Your task to perform on an android device: turn off notifications settings in the gmail app Image 0: 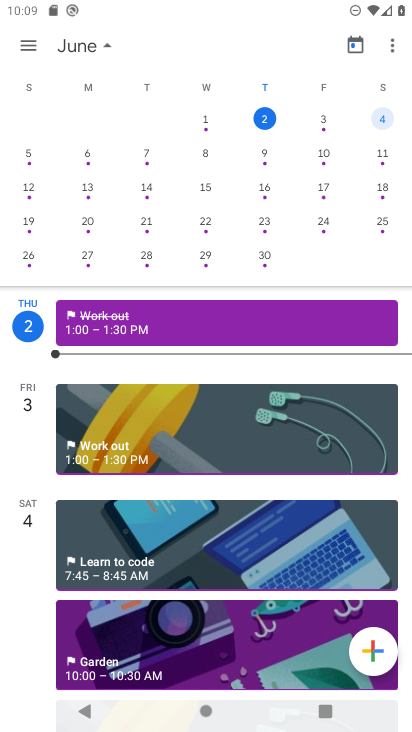
Step 0: press home button
Your task to perform on an android device: turn off notifications settings in the gmail app Image 1: 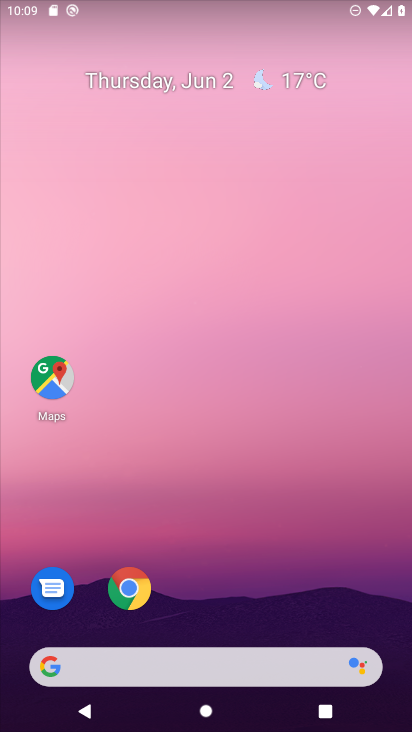
Step 1: drag from (206, 682) to (219, 591)
Your task to perform on an android device: turn off notifications settings in the gmail app Image 2: 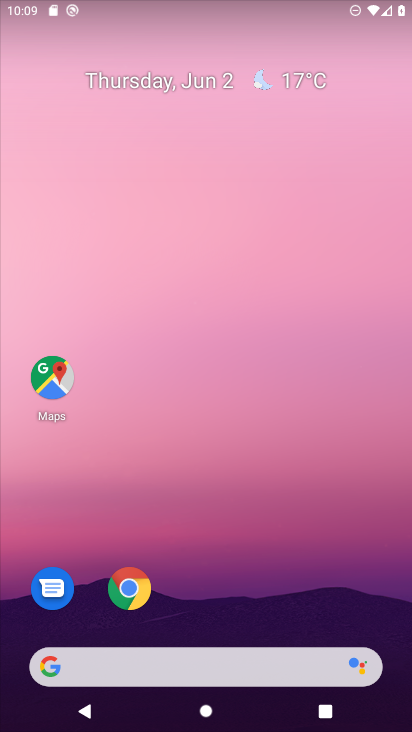
Step 2: drag from (224, 623) to (224, 185)
Your task to perform on an android device: turn off notifications settings in the gmail app Image 3: 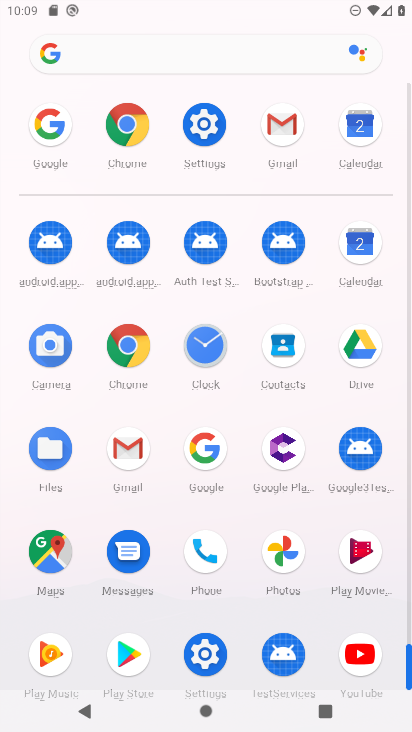
Step 3: click (133, 464)
Your task to perform on an android device: turn off notifications settings in the gmail app Image 4: 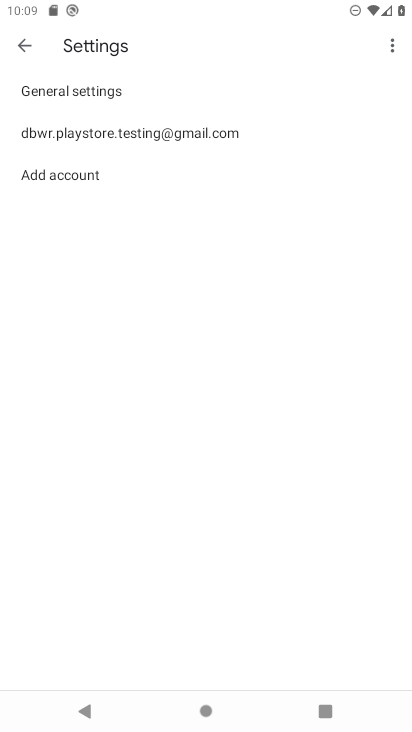
Step 4: click (30, 49)
Your task to perform on an android device: turn off notifications settings in the gmail app Image 5: 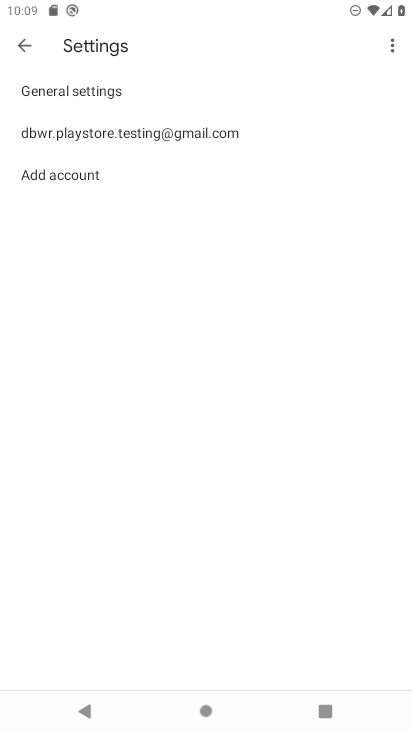
Step 5: click (29, 48)
Your task to perform on an android device: turn off notifications settings in the gmail app Image 6: 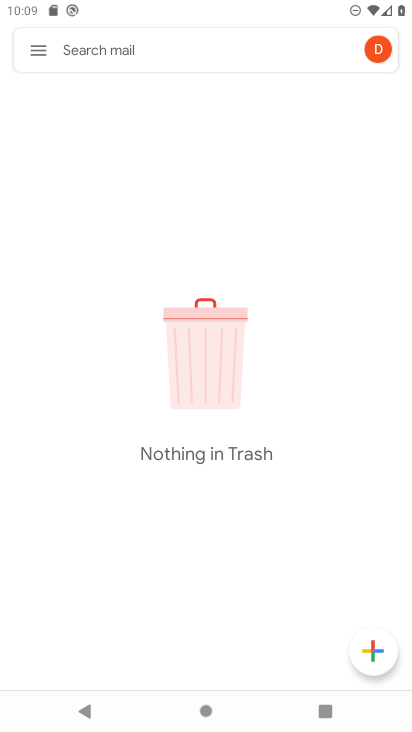
Step 6: click (29, 48)
Your task to perform on an android device: turn off notifications settings in the gmail app Image 7: 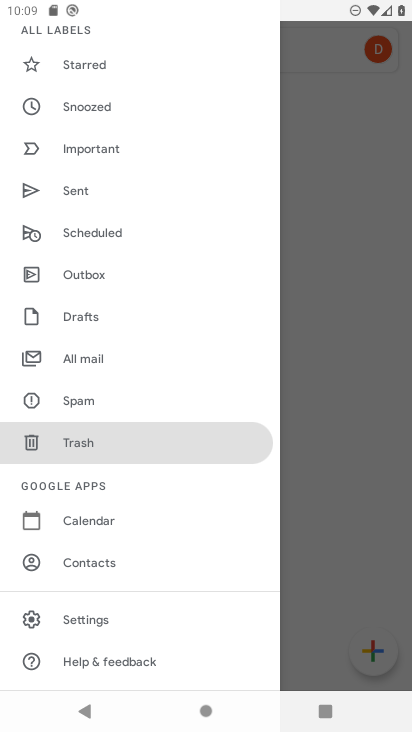
Step 7: click (65, 618)
Your task to perform on an android device: turn off notifications settings in the gmail app Image 8: 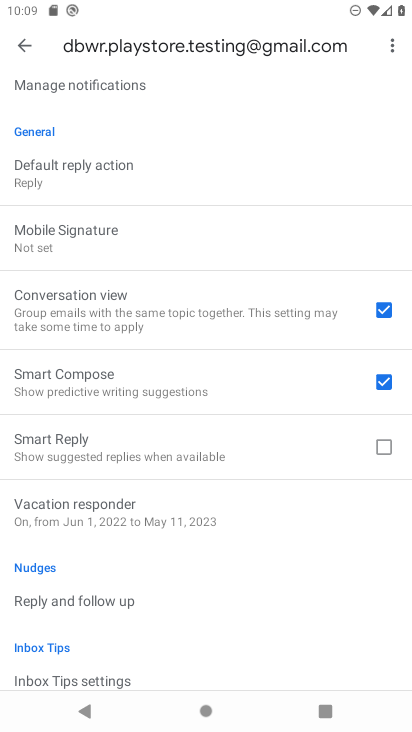
Step 8: click (23, 47)
Your task to perform on an android device: turn off notifications settings in the gmail app Image 9: 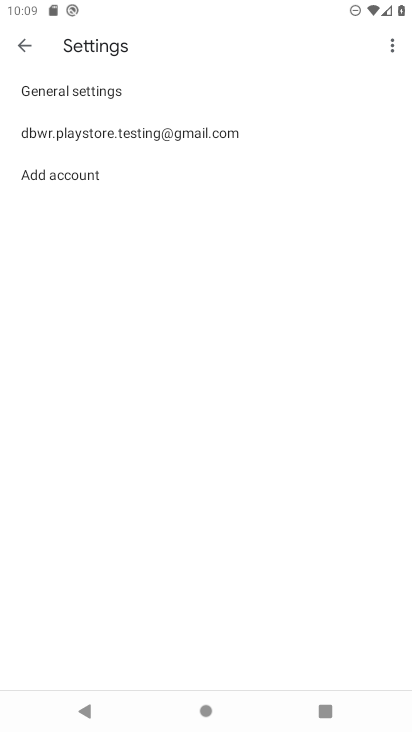
Step 9: click (81, 101)
Your task to perform on an android device: turn off notifications settings in the gmail app Image 10: 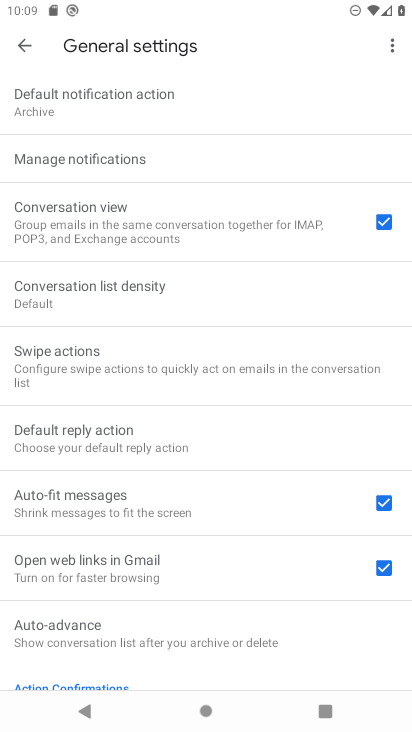
Step 10: click (116, 156)
Your task to perform on an android device: turn off notifications settings in the gmail app Image 11: 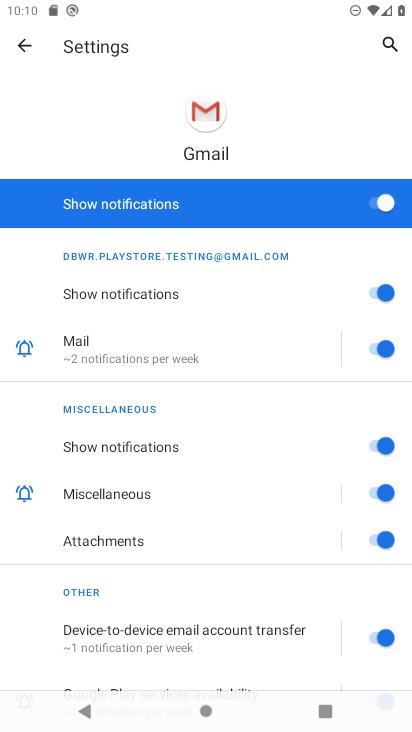
Step 11: click (359, 207)
Your task to perform on an android device: turn off notifications settings in the gmail app Image 12: 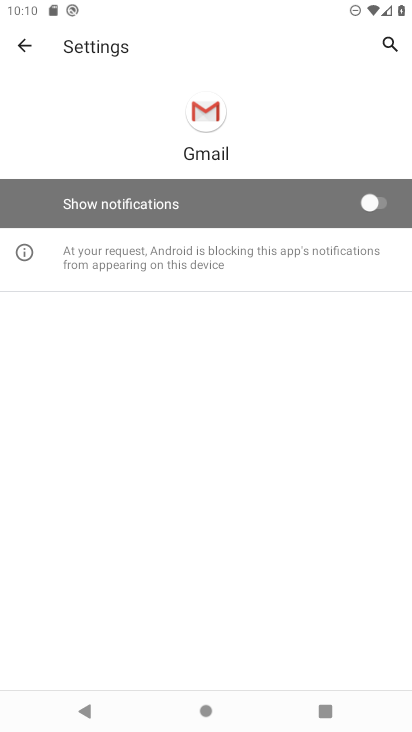
Step 12: task complete